Your task to perform on an android device: allow notifications from all sites in the chrome app Image 0: 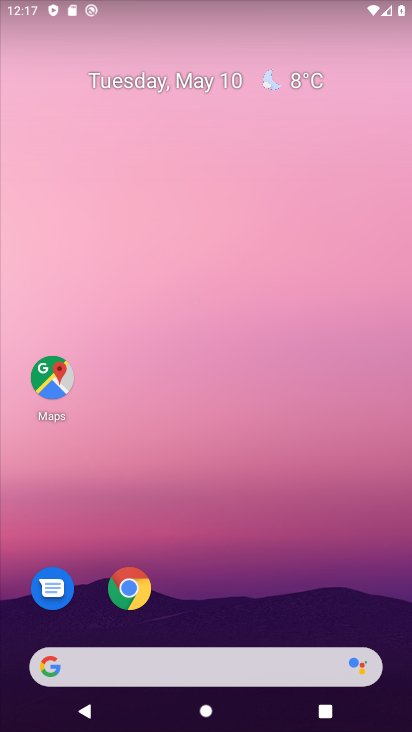
Step 0: click (131, 596)
Your task to perform on an android device: allow notifications from all sites in the chrome app Image 1: 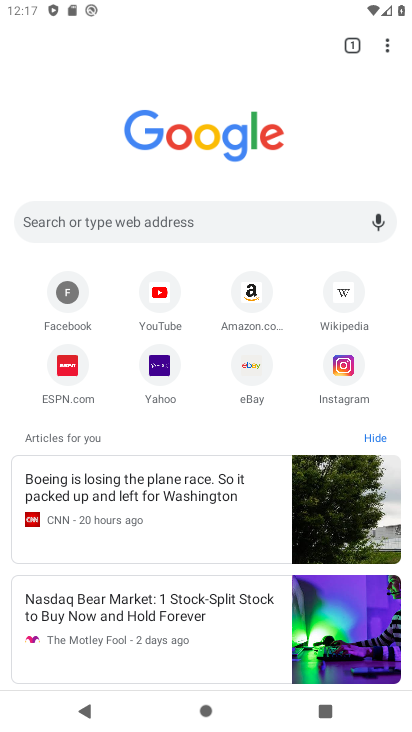
Step 1: click (391, 50)
Your task to perform on an android device: allow notifications from all sites in the chrome app Image 2: 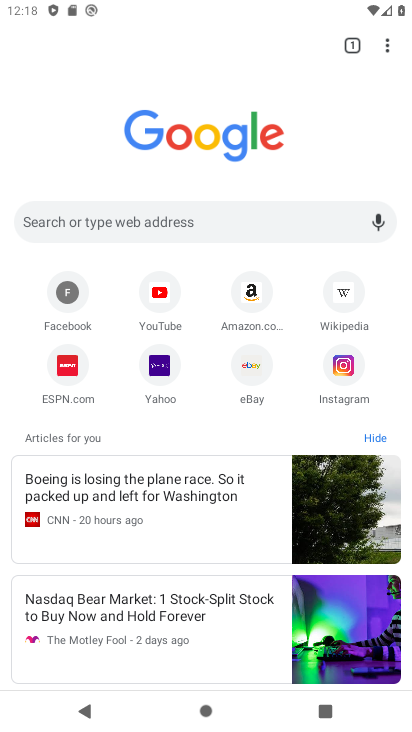
Step 2: drag from (387, 52) to (269, 383)
Your task to perform on an android device: allow notifications from all sites in the chrome app Image 3: 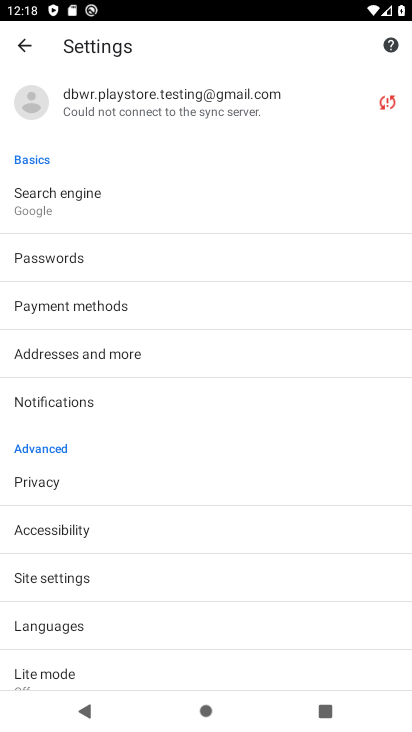
Step 3: click (66, 581)
Your task to perform on an android device: allow notifications from all sites in the chrome app Image 4: 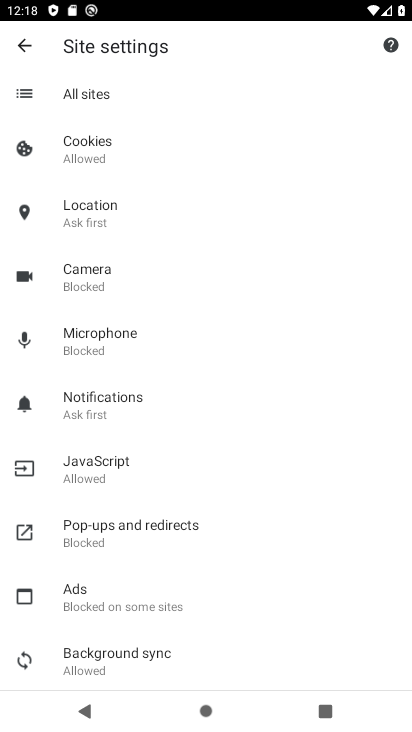
Step 4: click (151, 417)
Your task to perform on an android device: allow notifications from all sites in the chrome app Image 5: 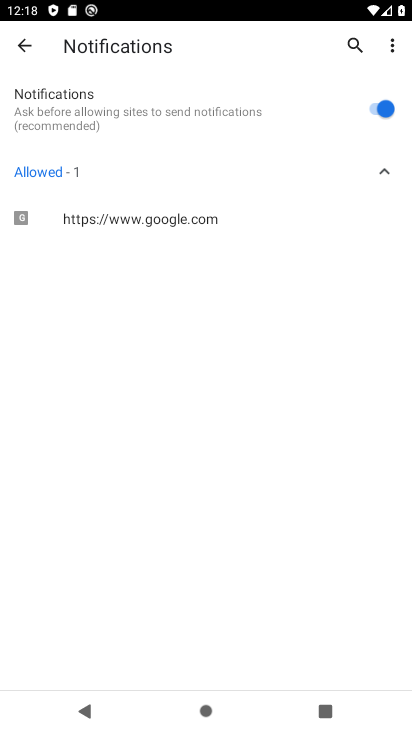
Step 5: task complete